Your task to perform on an android device: toggle translation in the chrome app Image 0: 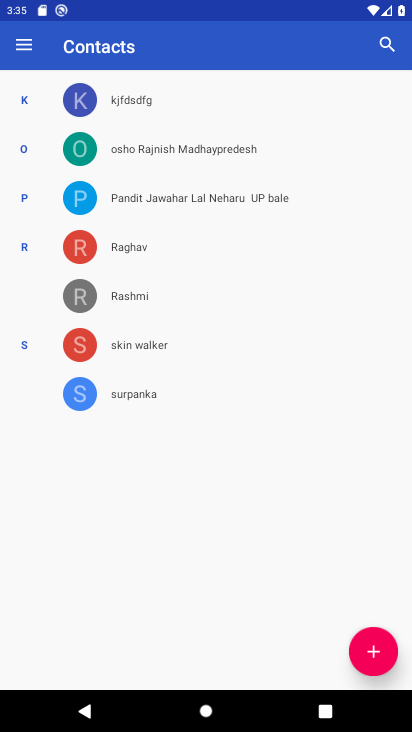
Step 0: press home button
Your task to perform on an android device: toggle translation in the chrome app Image 1: 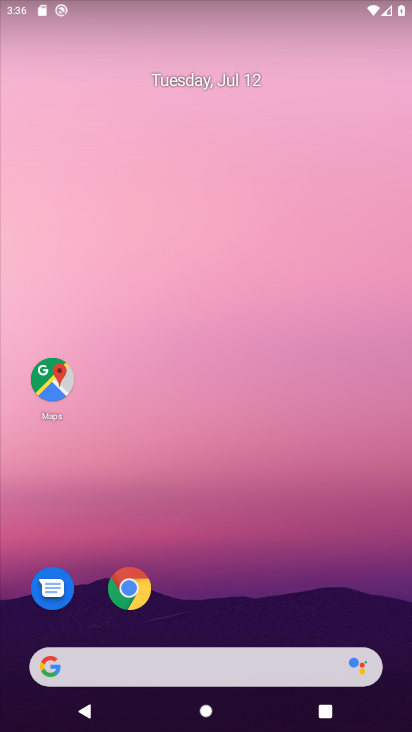
Step 1: drag from (391, 623) to (318, 12)
Your task to perform on an android device: toggle translation in the chrome app Image 2: 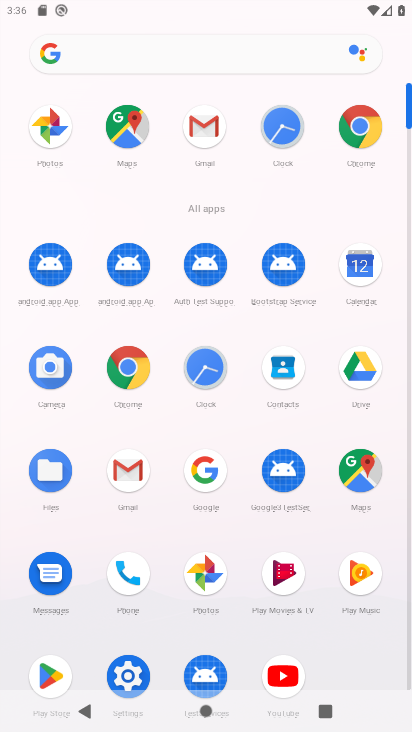
Step 2: click (364, 131)
Your task to perform on an android device: toggle translation in the chrome app Image 3: 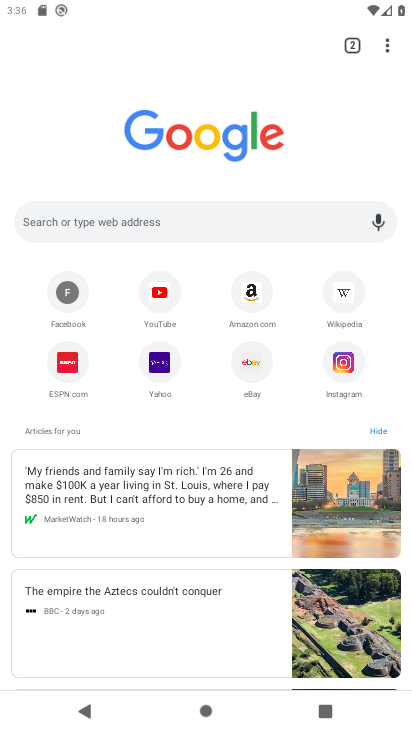
Step 3: click (390, 50)
Your task to perform on an android device: toggle translation in the chrome app Image 4: 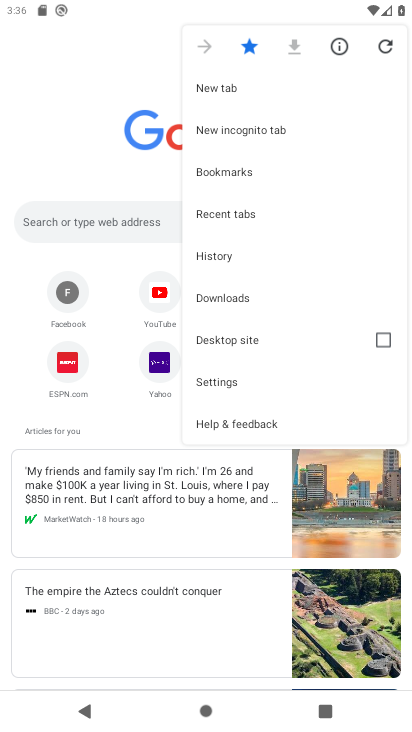
Step 4: click (279, 382)
Your task to perform on an android device: toggle translation in the chrome app Image 5: 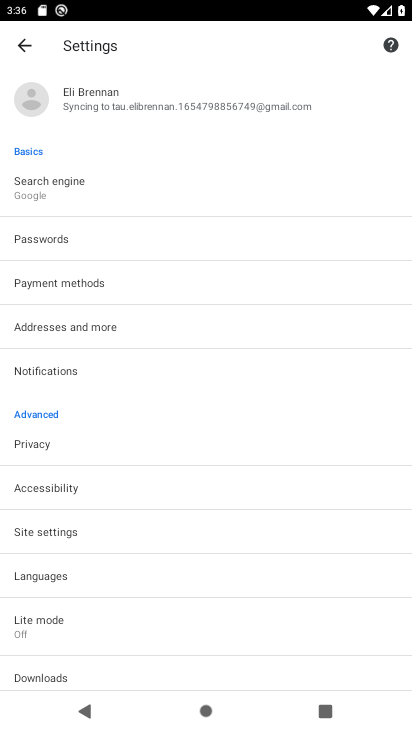
Step 5: click (203, 576)
Your task to perform on an android device: toggle translation in the chrome app Image 6: 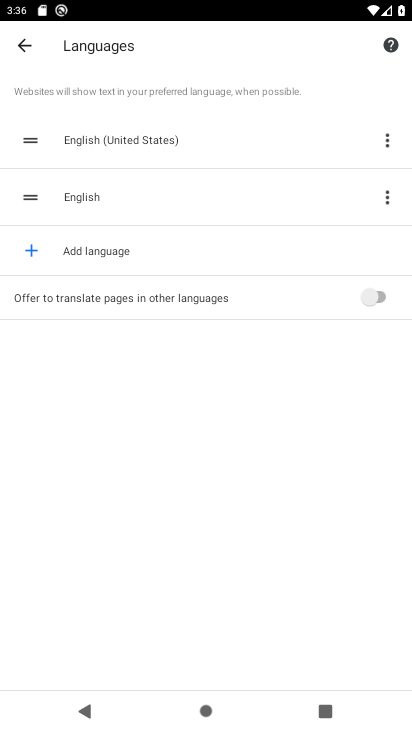
Step 6: click (381, 297)
Your task to perform on an android device: toggle translation in the chrome app Image 7: 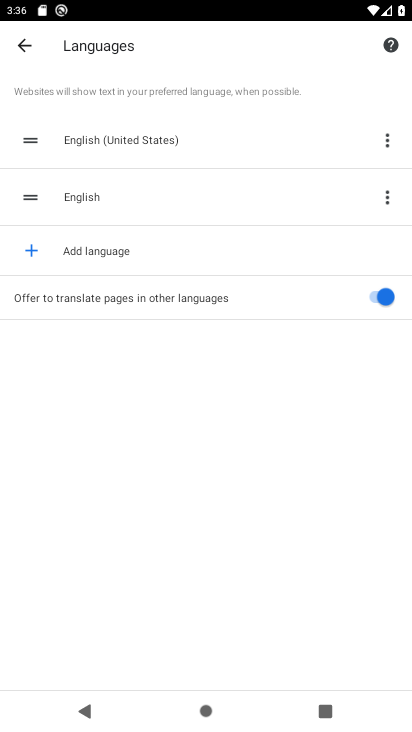
Step 7: task complete